Your task to perform on an android device: change notification settings in the gmail app Image 0: 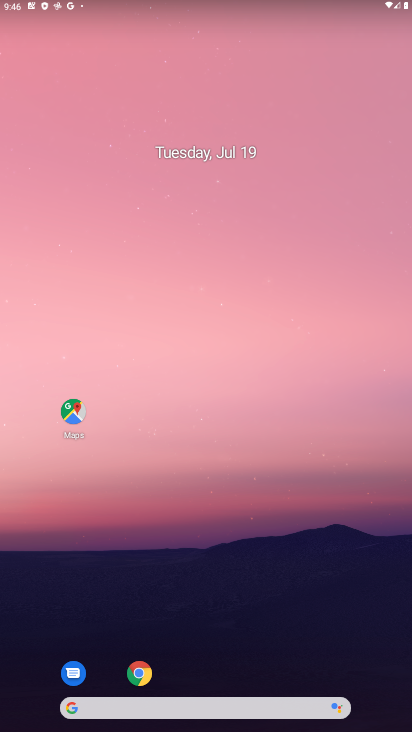
Step 0: drag from (275, 676) to (306, 162)
Your task to perform on an android device: change notification settings in the gmail app Image 1: 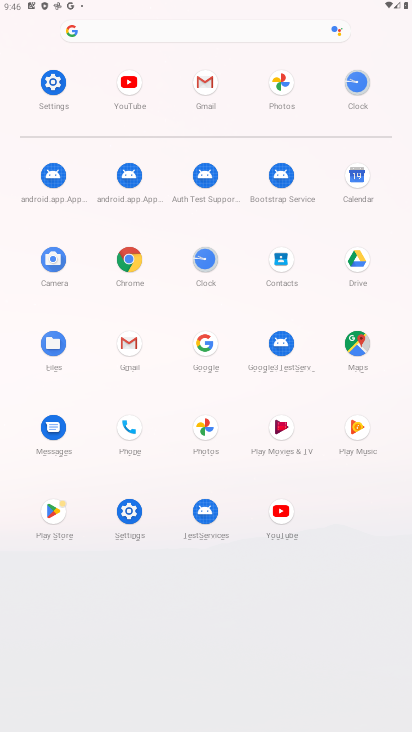
Step 1: click (218, 92)
Your task to perform on an android device: change notification settings in the gmail app Image 2: 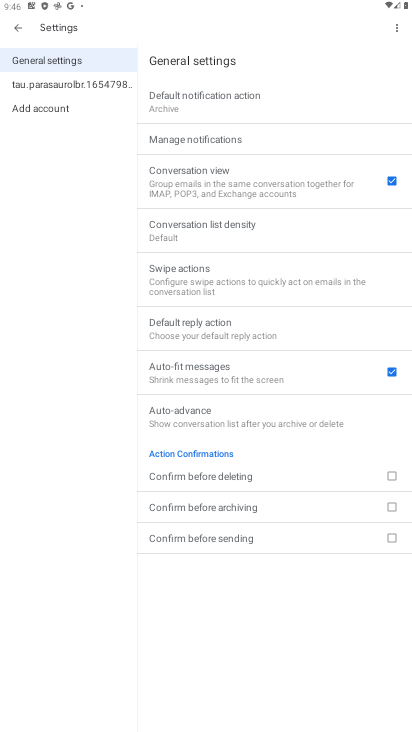
Step 2: task complete